Your task to perform on an android device: find which apps use the phone's location Image 0: 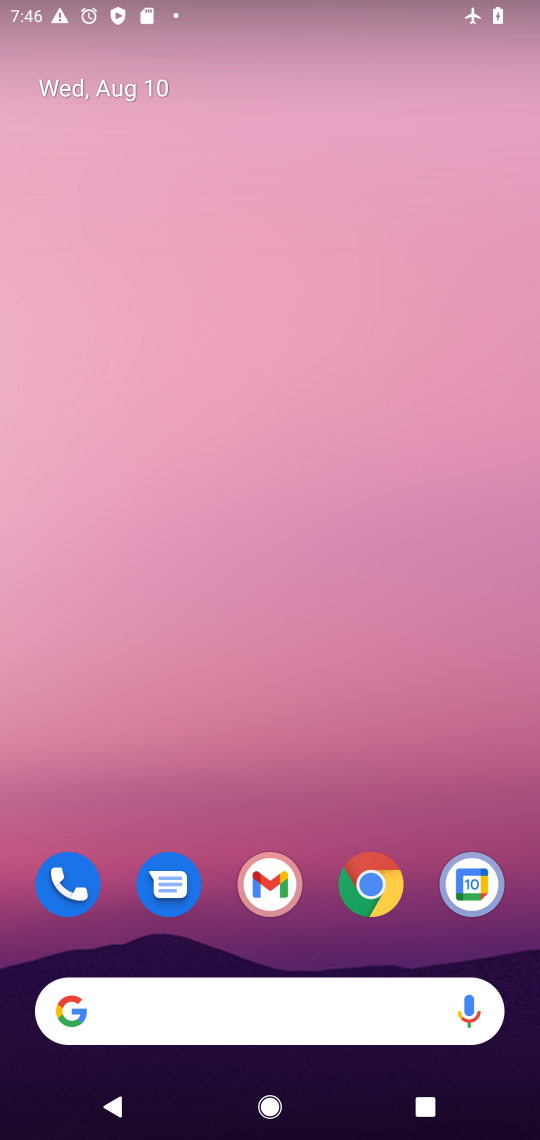
Step 0: drag from (49, 1087) to (324, 200)
Your task to perform on an android device: find which apps use the phone's location Image 1: 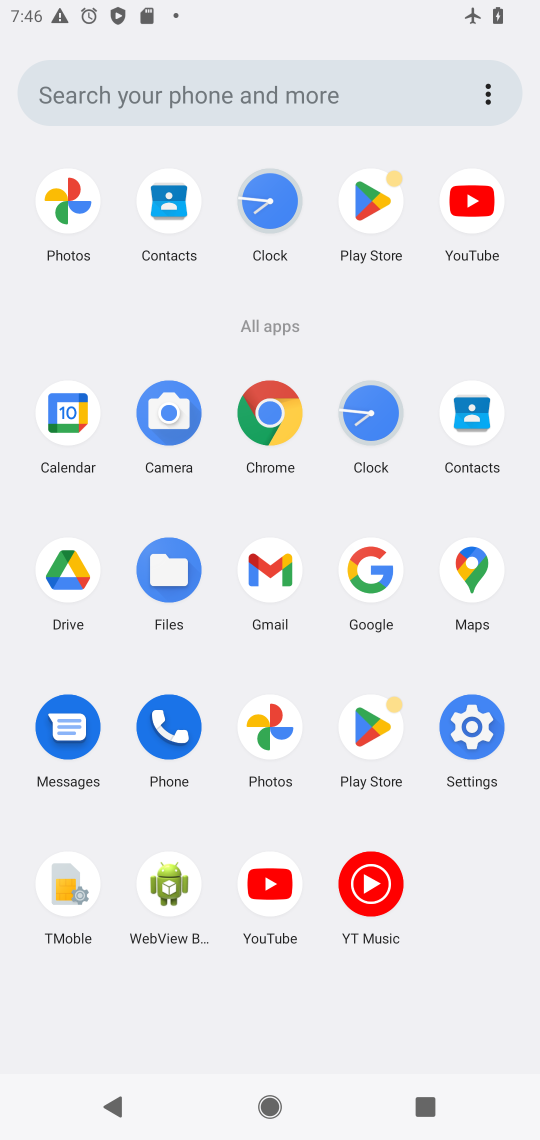
Step 1: click (460, 722)
Your task to perform on an android device: find which apps use the phone's location Image 2: 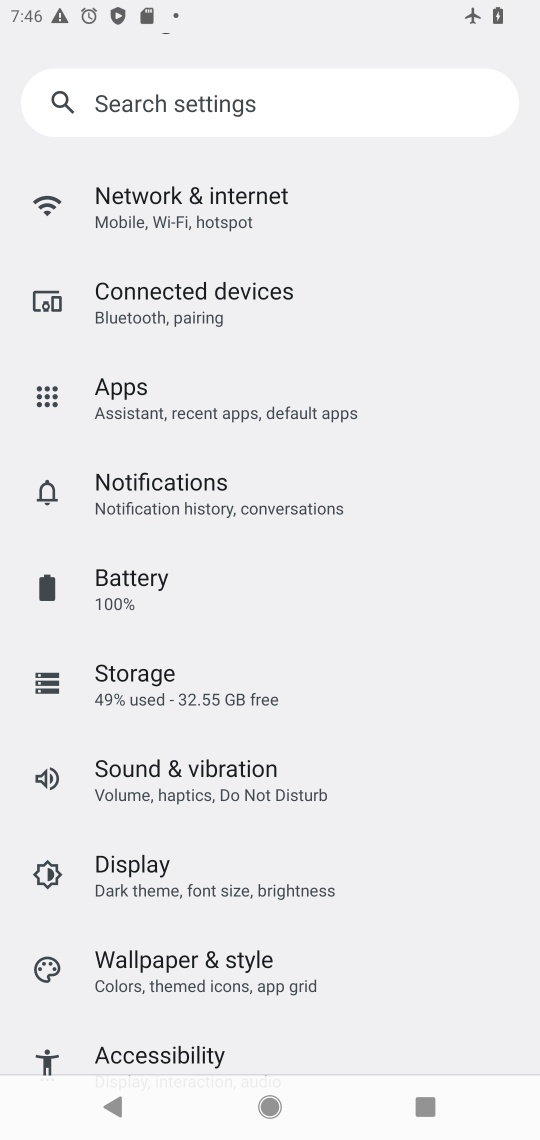
Step 2: drag from (449, 948) to (455, 537)
Your task to perform on an android device: find which apps use the phone's location Image 3: 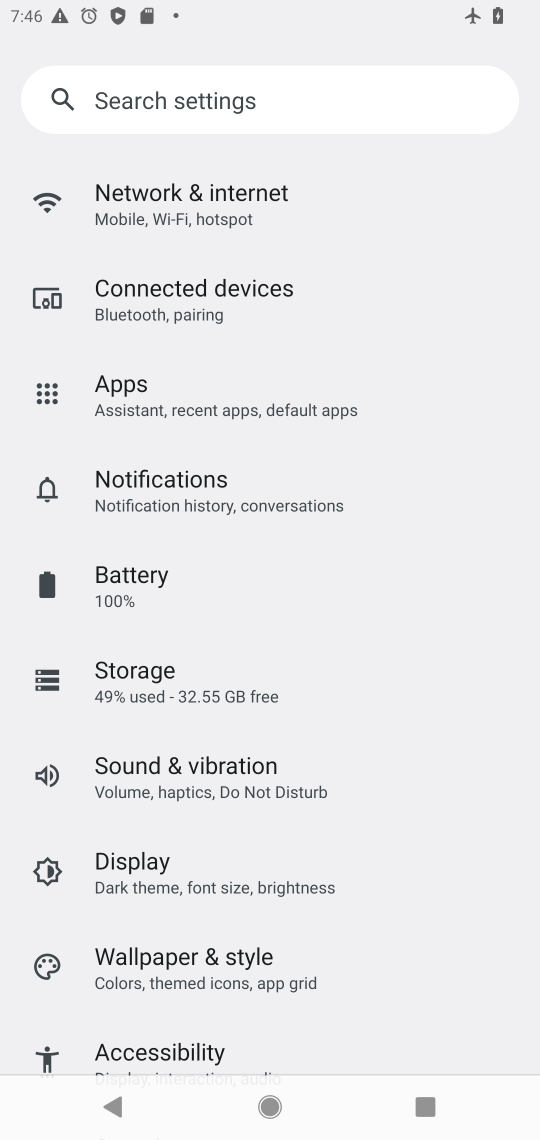
Step 3: drag from (410, 1009) to (465, 372)
Your task to perform on an android device: find which apps use the phone's location Image 4: 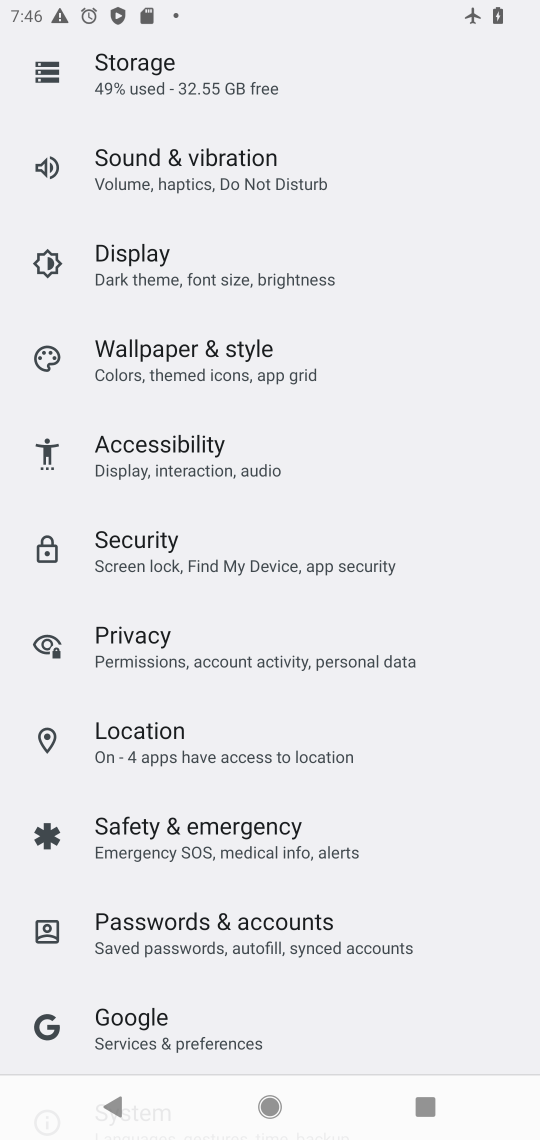
Step 4: drag from (493, 971) to (436, 500)
Your task to perform on an android device: find which apps use the phone's location Image 5: 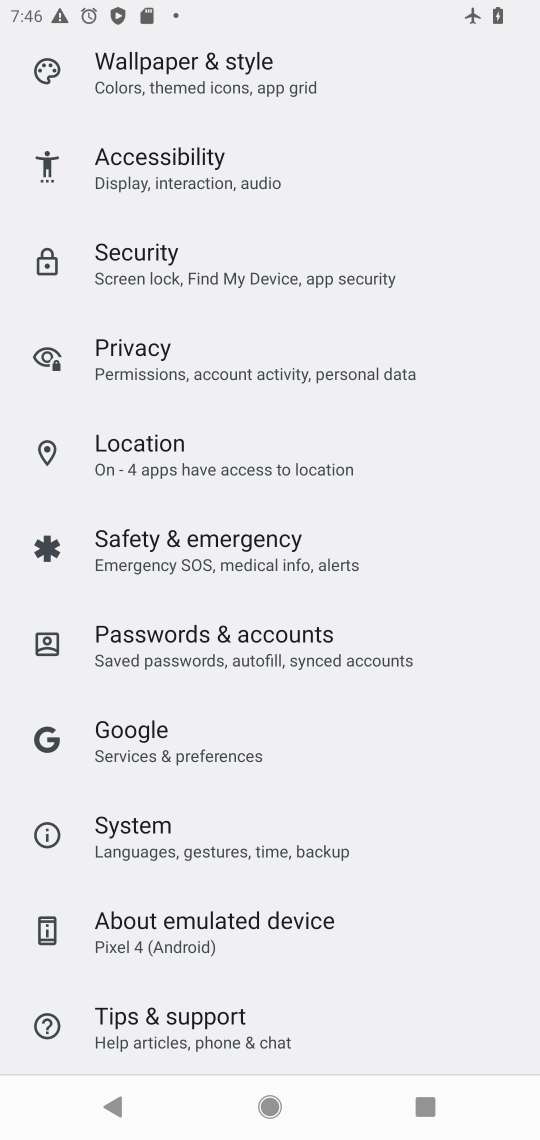
Step 5: drag from (437, 897) to (380, 530)
Your task to perform on an android device: find which apps use the phone's location Image 6: 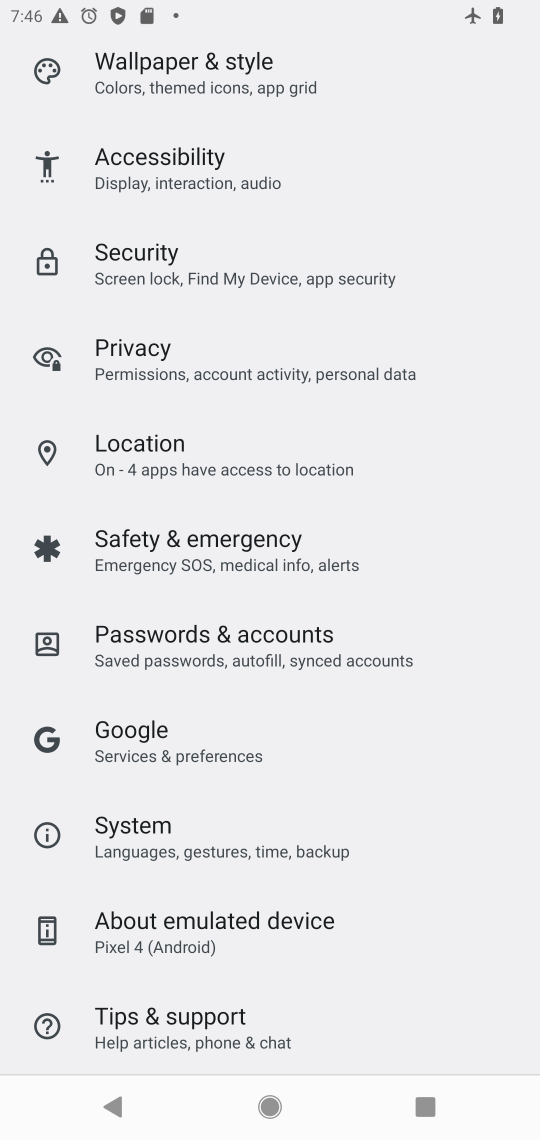
Step 6: click (161, 452)
Your task to perform on an android device: find which apps use the phone's location Image 7: 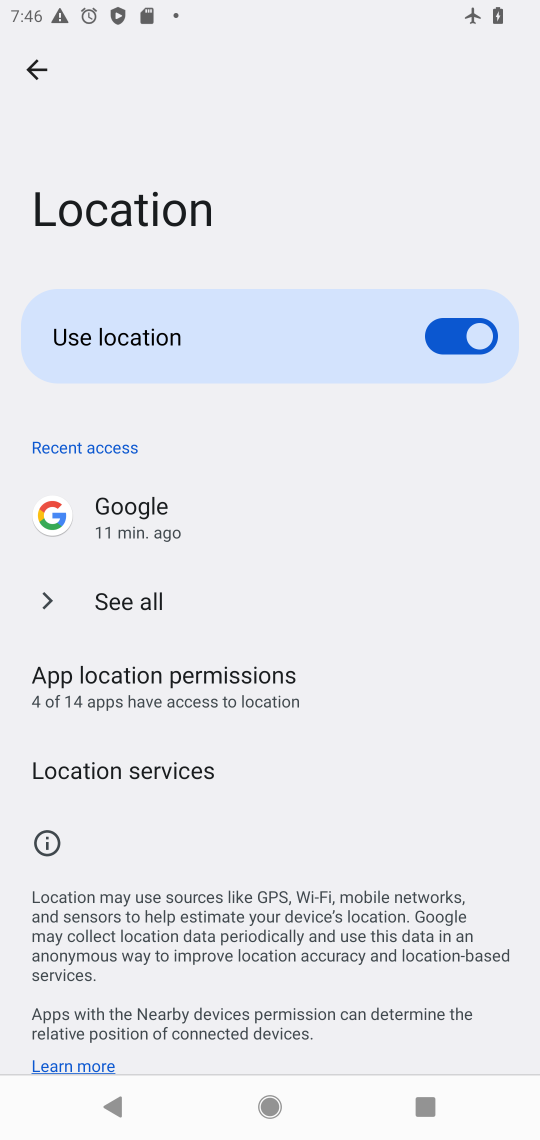
Step 7: click (138, 701)
Your task to perform on an android device: find which apps use the phone's location Image 8: 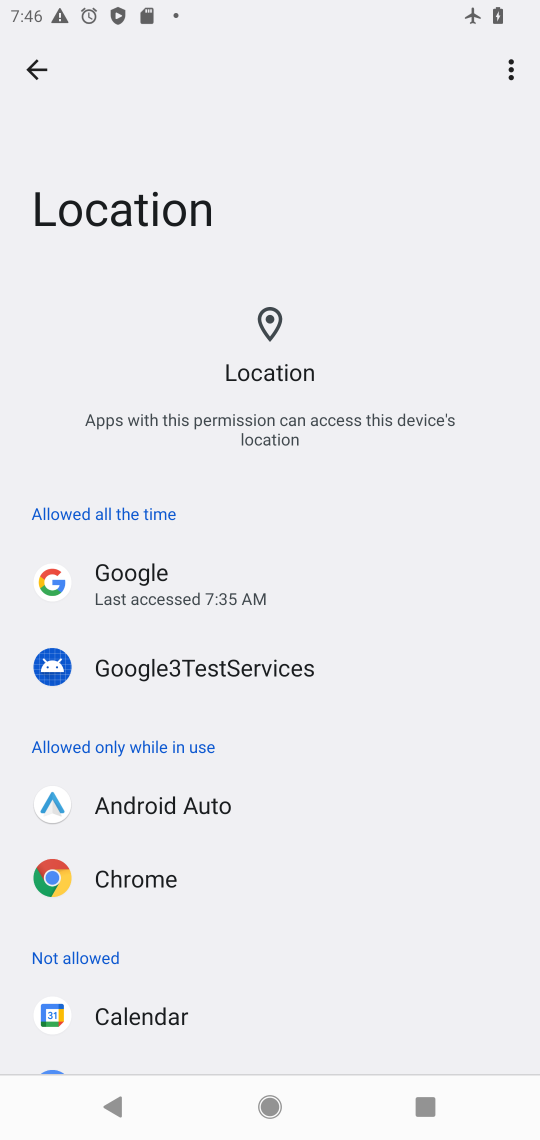
Step 8: task complete